Your task to perform on an android device: set an alarm Image 0: 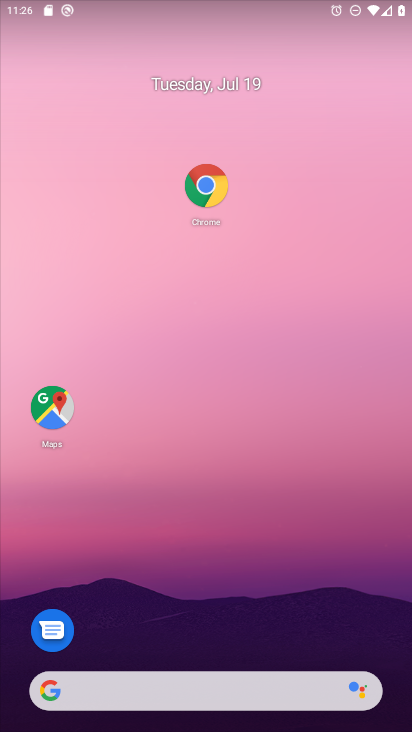
Step 0: drag from (251, 623) to (255, 151)
Your task to perform on an android device: set an alarm Image 1: 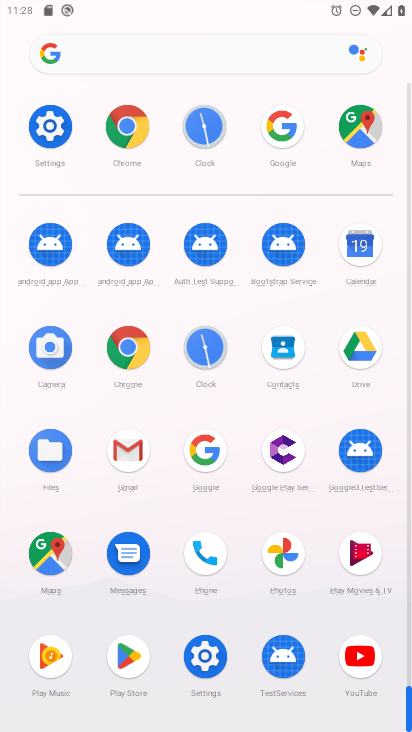
Step 1: click (215, 354)
Your task to perform on an android device: set an alarm Image 2: 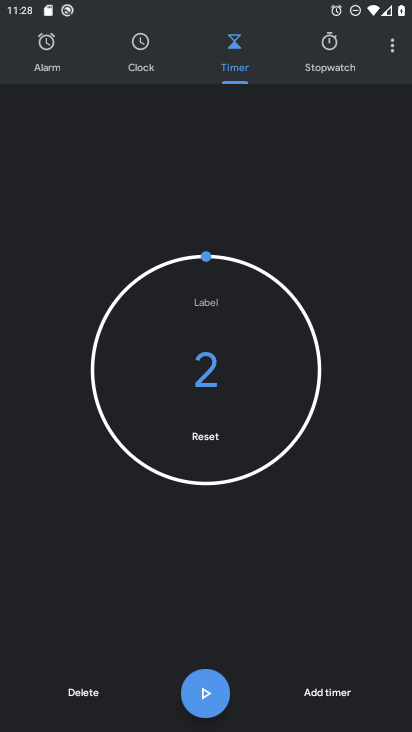
Step 2: click (41, 66)
Your task to perform on an android device: set an alarm Image 3: 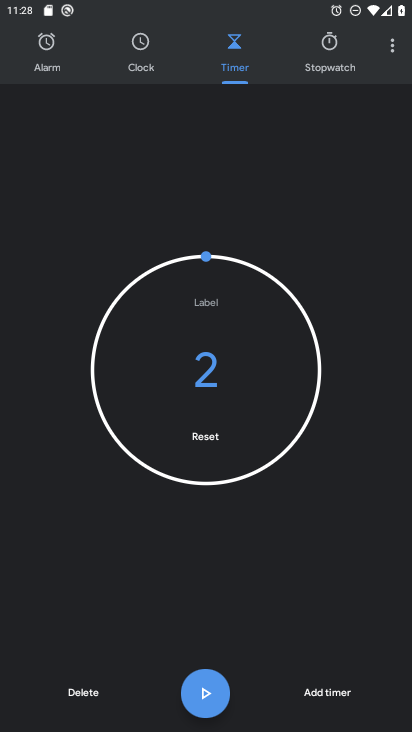
Step 3: click (53, 62)
Your task to perform on an android device: set an alarm Image 4: 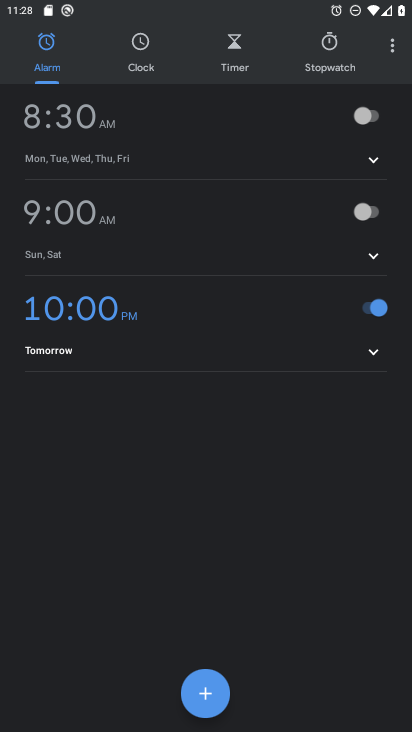
Step 4: click (202, 698)
Your task to perform on an android device: set an alarm Image 5: 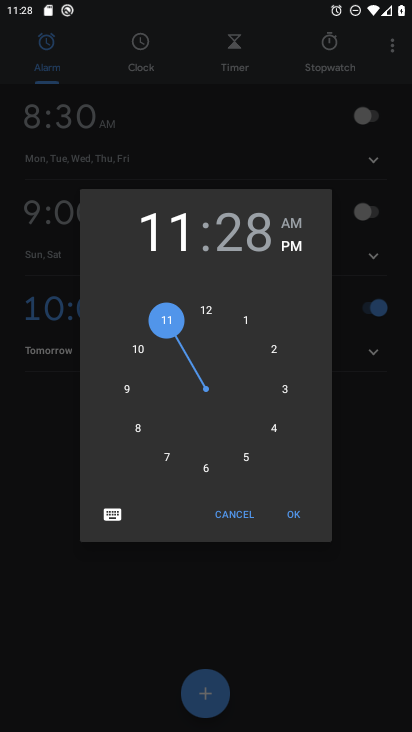
Step 5: click (295, 521)
Your task to perform on an android device: set an alarm Image 6: 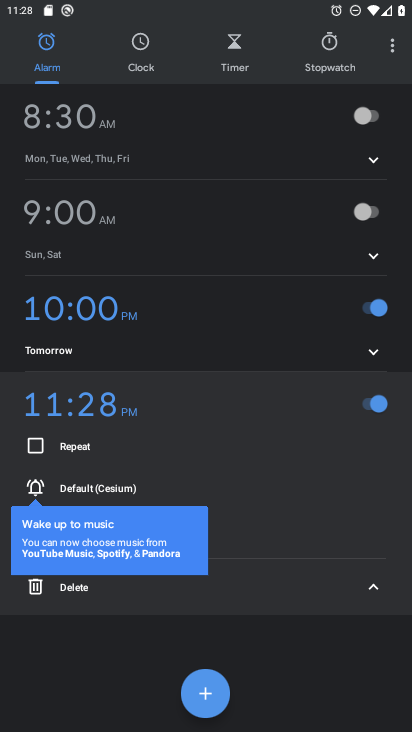
Step 6: task complete